Your task to perform on an android device: Open Google Maps Image 0: 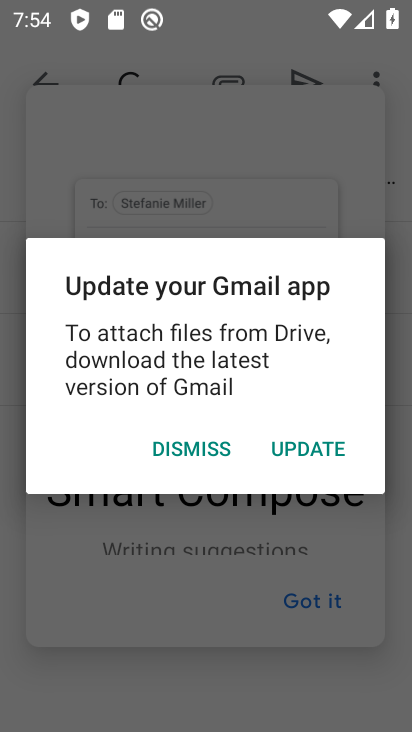
Step 0: press home button
Your task to perform on an android device: Open Google Maps Image 1: 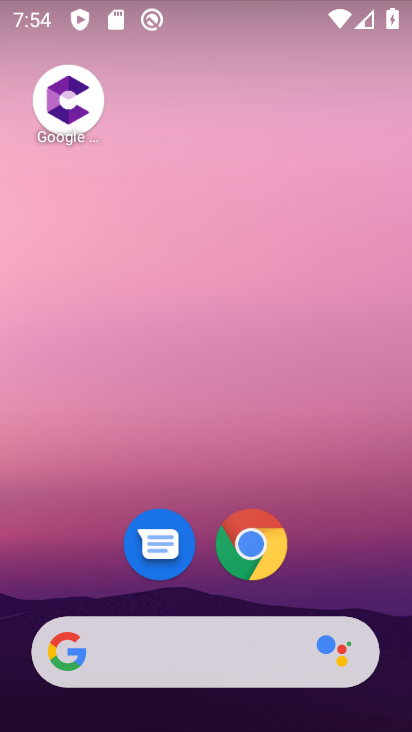
Step 1: drag from (228, 317) to (274, 74)
Your task to perform on an android device: Open Google Maps Image 2: 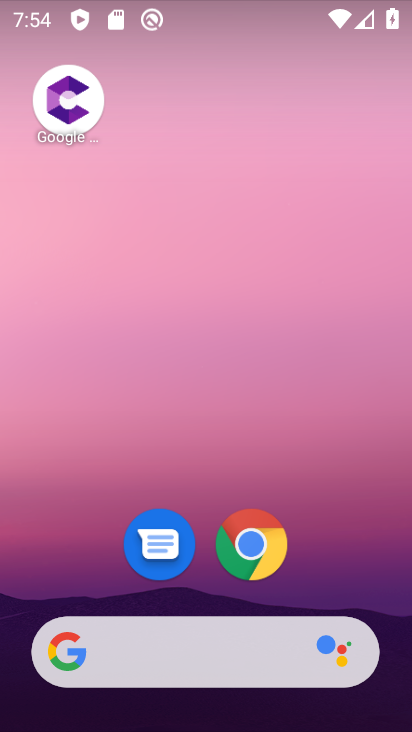
Step 2: drag from (252, 254) to (318, 17)
Your task to perform on an android device: Open Google Maps Image 3: 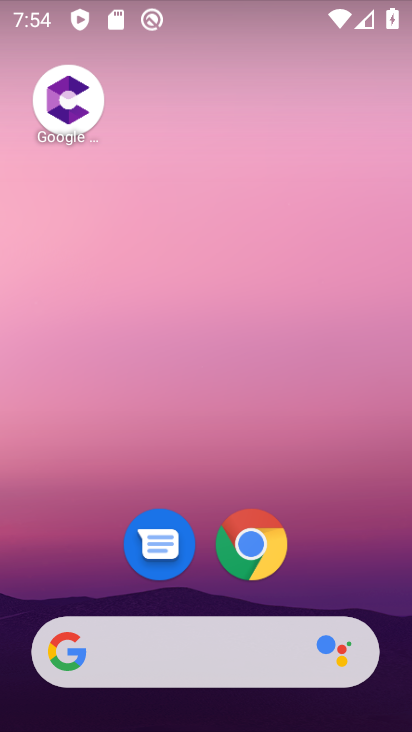
Step 3: drag from (308, 459) to (343, 8)
Your task to perform on an android device: Open Google Maps Image 4: 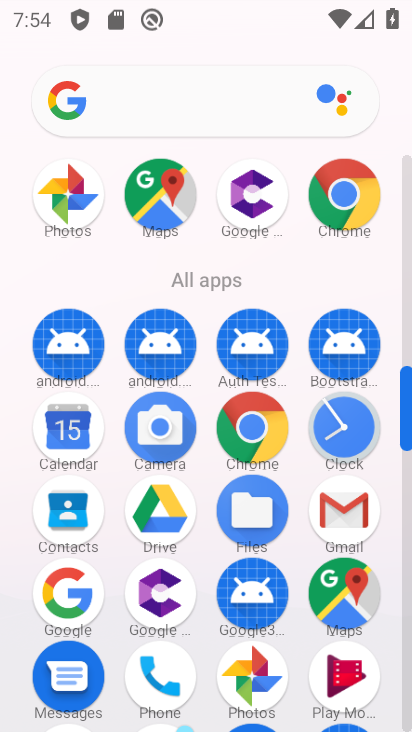
Step 4: click (164, 202)
Your task to perform on an android device: Open Google Maps Image 5: 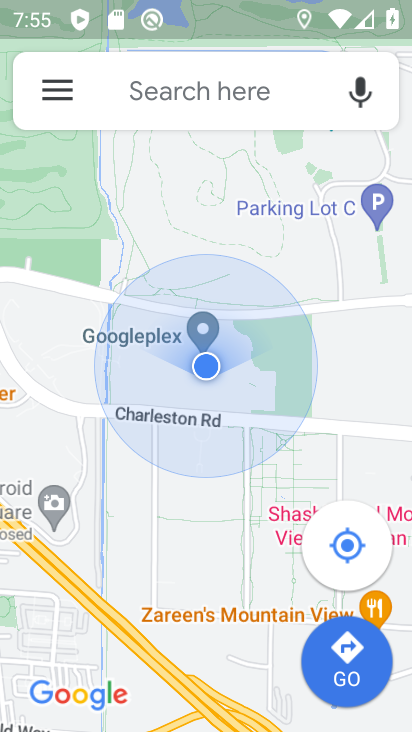
Step 5: task complete